Your task to perform on an android device: Open the calendar and show me this week's events Image 0: 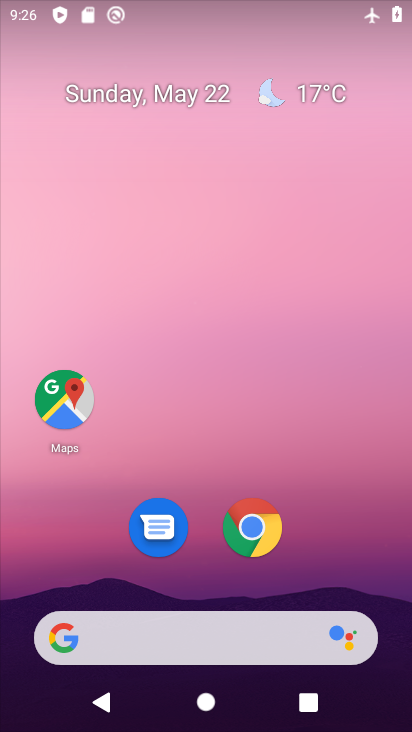
Step 0: drag from (333, 559) to (324, 55)
Your task to perform on an android device: Open the calendar and show me this week's events Image 1: 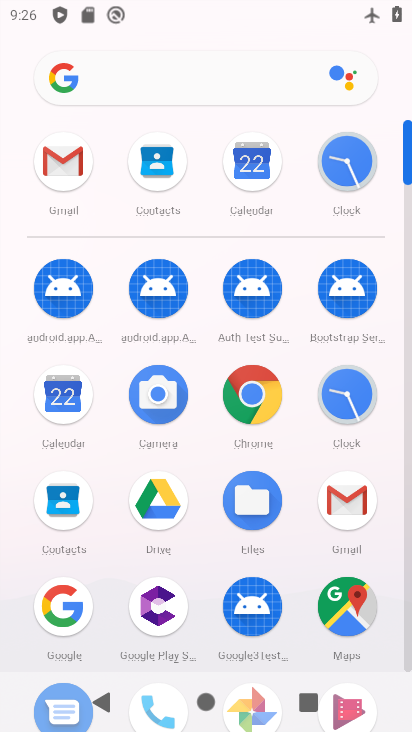
Step 1: click (71, 389)
Your task to perform on an android device: Open the calendar and show me this week's events Image 2: 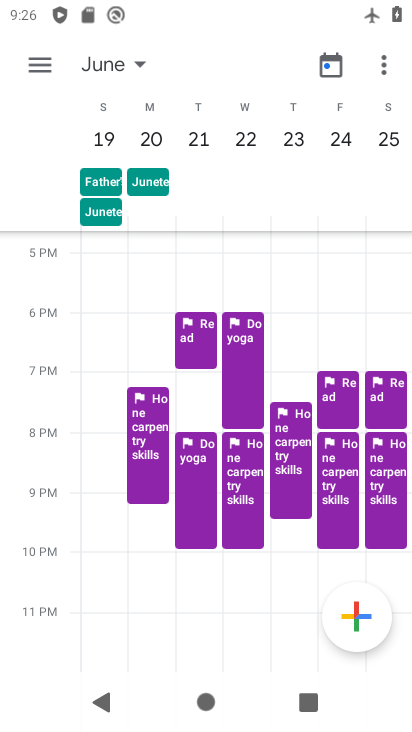
Step 2: click (139, 62)
Your task to perform on an android device: Open the calendar and show me this week's events Image 3: 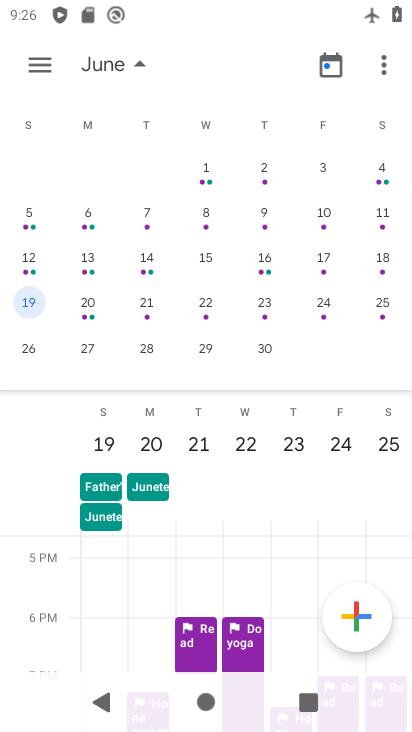
Step 3: drag from (39, 230) to (398, 256)
Your task to perform on an android device: Open the calendar and show me this week's events Image 4: 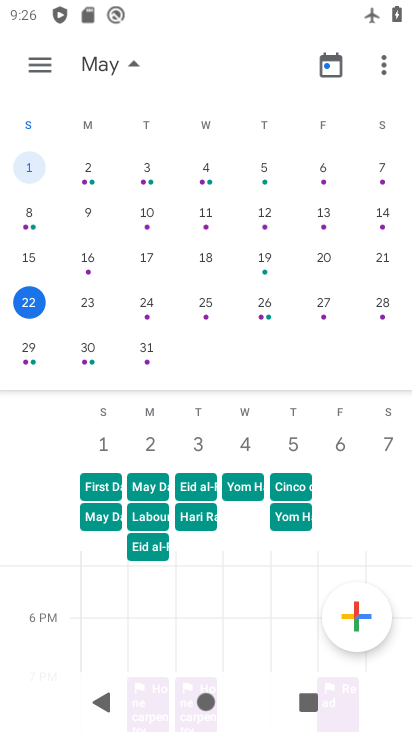
Step 4: click (28, 301)
Your task to perform on an android device: Open the calendar and show me this week's events Image 5: 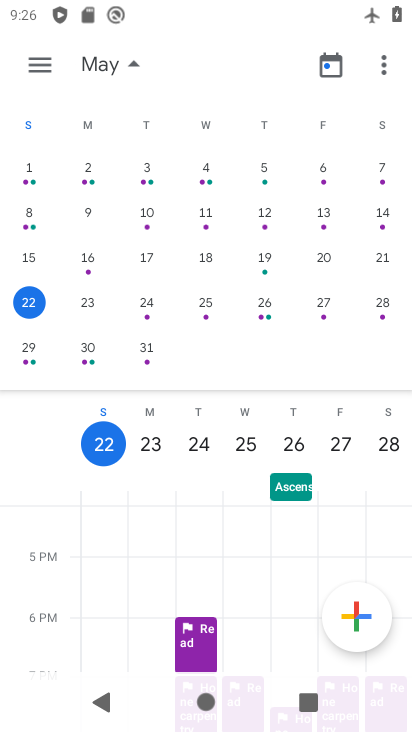
Step 5: task complete